Your task to perform on an android device: Open Google Chrome and click the shortcut for Amazon.com Image 0: 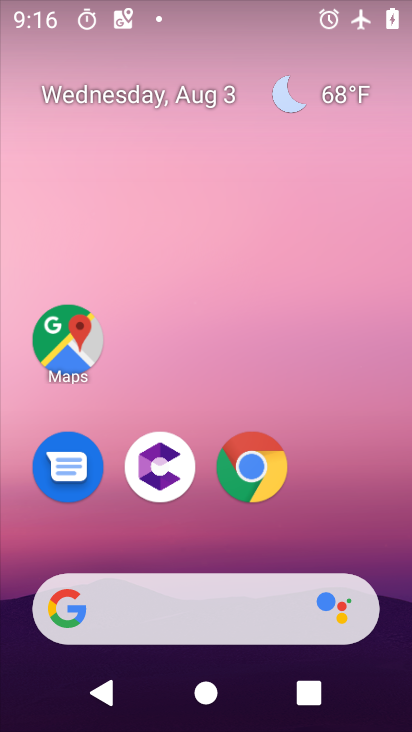
Step 0: drag from (378, 478) to (304, 67)
Your task to perform on an android device: Open Google Chrome and click the shortcut for Amazon.com Image 1: 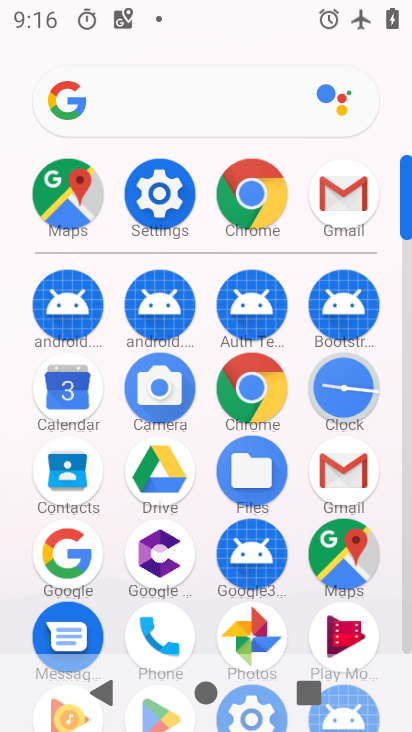
Step 1: click (253, 389)
Your task to perform on an android device: Open Google Chrome and click the shortcut for Amazon.com Image 2: 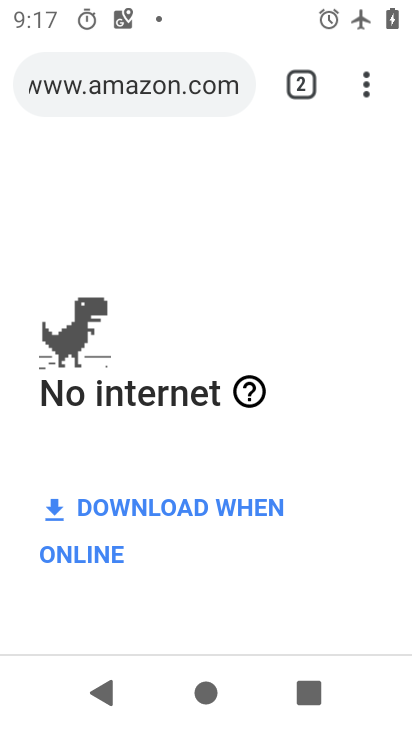
Step 2: task complete